Your task to perform on an android device: turn on sleep mode Image 0: 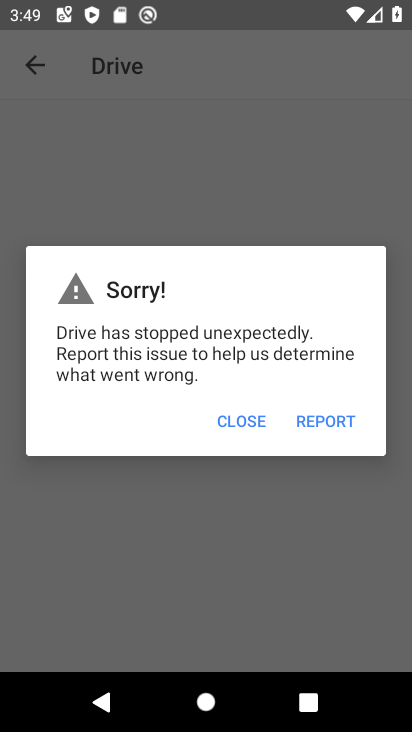
Step 0: press home button
Your task to perform on an android device: turn on sleep mode Image 1: 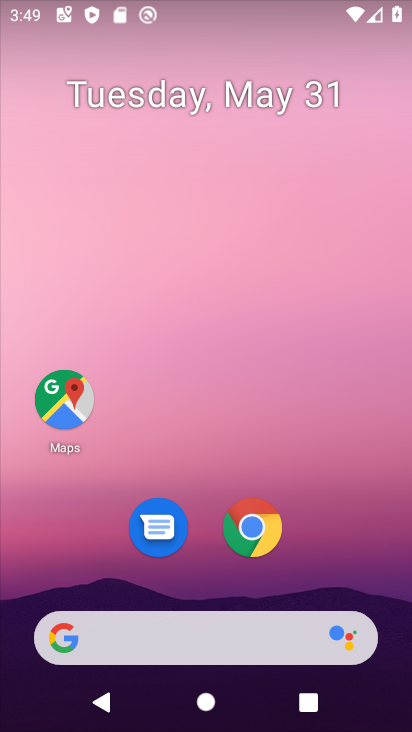
Step 1: drag from (200, 603) to (170, 46)
Your task to perform on an android device: turn on sleep mode Image 2: 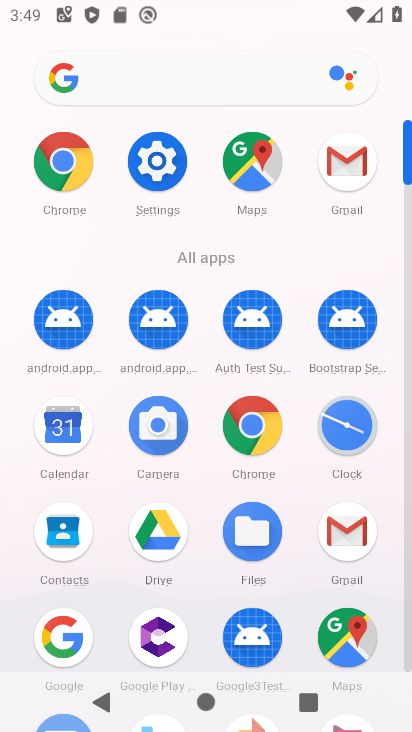
Step 2: click (157, 163)
Your task to perform on an android device: turn on sleep mode Image 3: 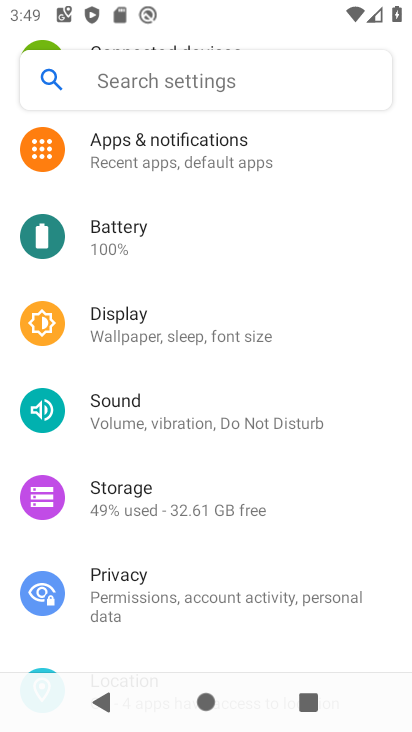
Step 3: click (148, 333)
Your task to perform on an android device: turn on sleep mode Image 4: 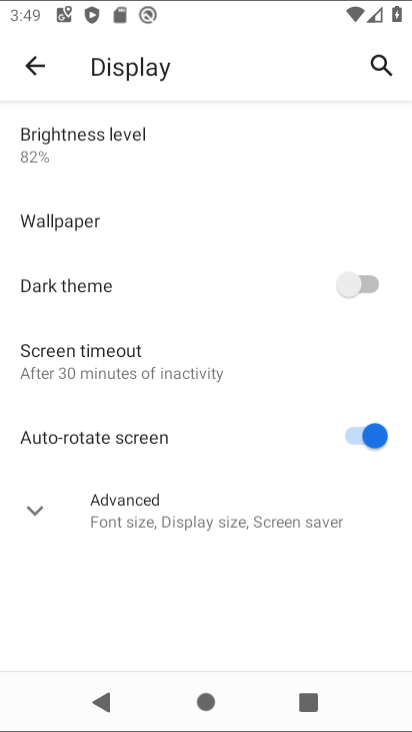
Step 4: task complete